Your task to perform on an android device: open app "Facebook" (install if not already installed) and go to login screen Image 0: 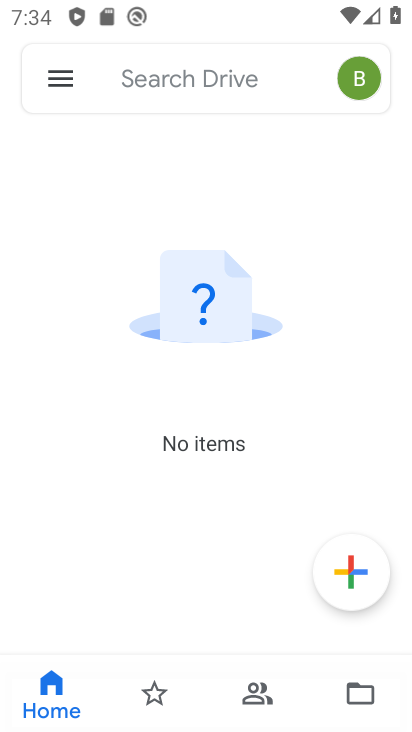
Step 0: press home button
Your task to perform on an android device: open app "Facebook" (install if not already installed) and go to login screen Image 1: 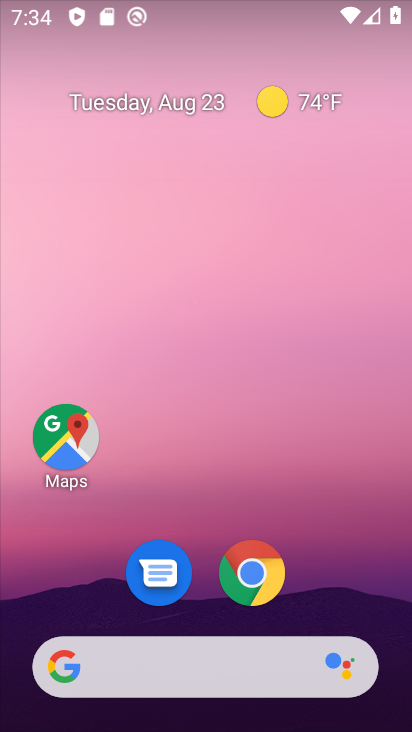
Step 1: drag from (208, 592) to (205, 64)
Your task to perform on an android device: open app "Facebook" (install if not already installed) and go to login screen Image 2: 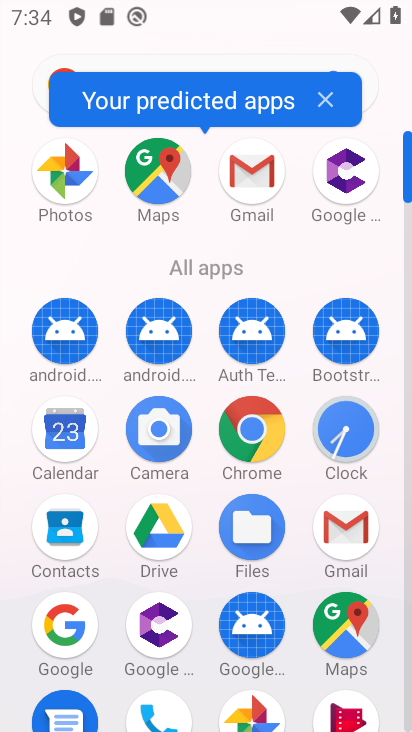
Step 2: drag from (212, 629) to (280, 237)
Your task to perform on an android device: open app "Facebook" (install if not already installed) and go to login screen Image 3: 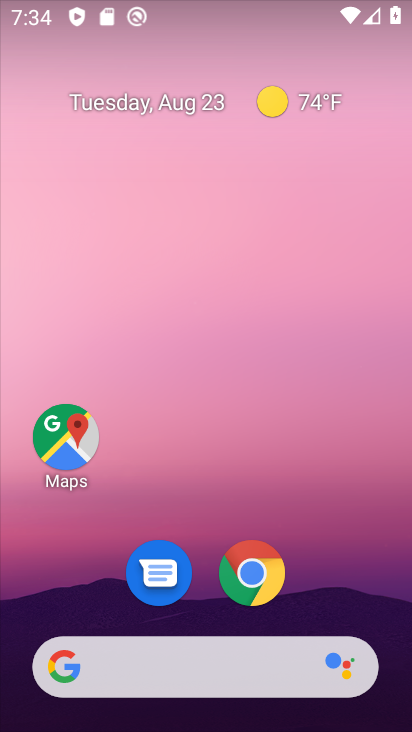
Step 3: drag from (201, 604) to (210, 85)
Your task to perform on an android device: open app "Facebook" (install if not already installed) and go to login screen Image 4: 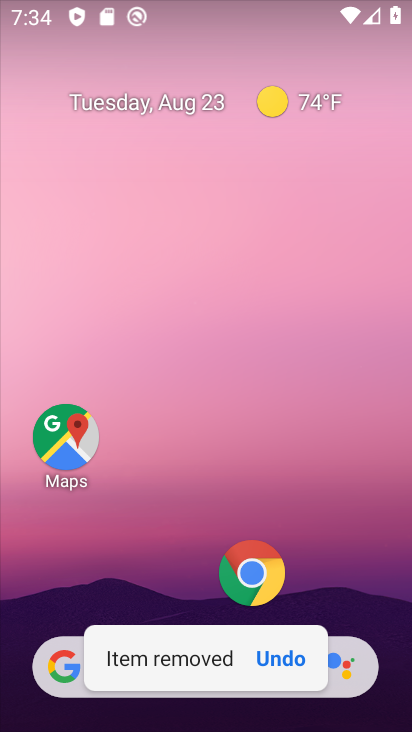
Step 4: drag from (195, 611) to (256, 136)
Your task to perform on an android device: open app "Facebook" (install if not already installed) and go to login screen Image 5: 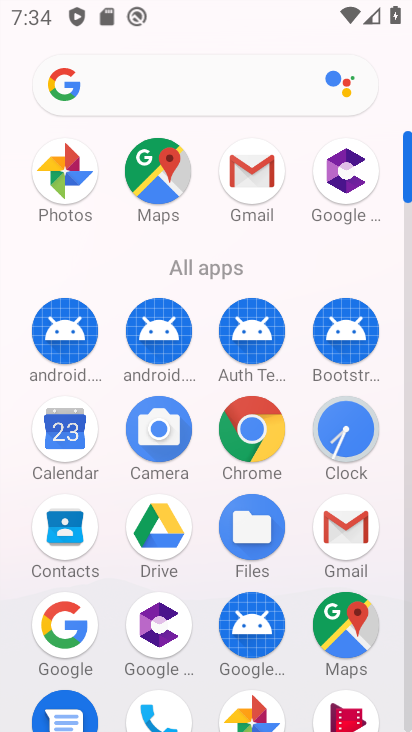
Step 5: drag from (197, 624) to (226, 264)
Your task to perform on an android device: open app "Facebook" (install if not already installed) and go to login screen Image 6: 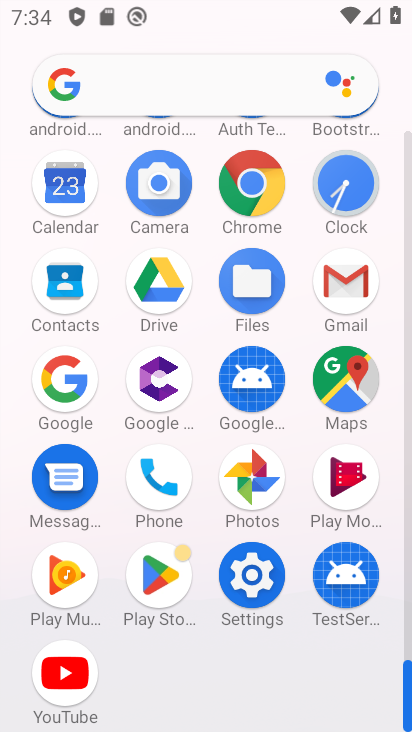
Step 6: click (159, 569)
Your task to perform on an android device: open app "Facebook" (install if not already installed) and go to login screen Image 7: 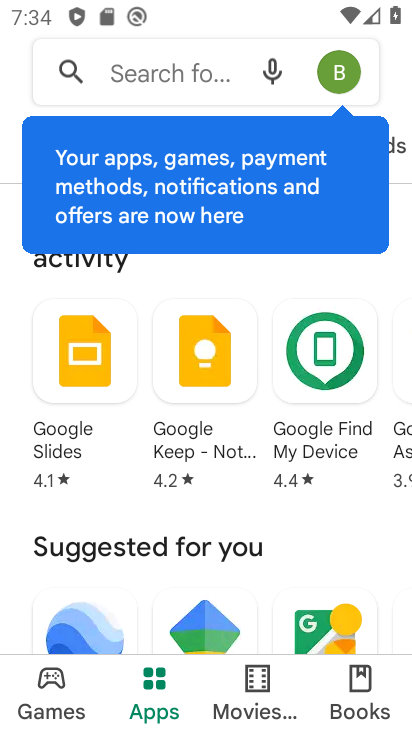
Step 7: click (146, 69)
Your task to perform on an android device: open app "Facebook" (install if not already installed) and go to login screen Image 8: 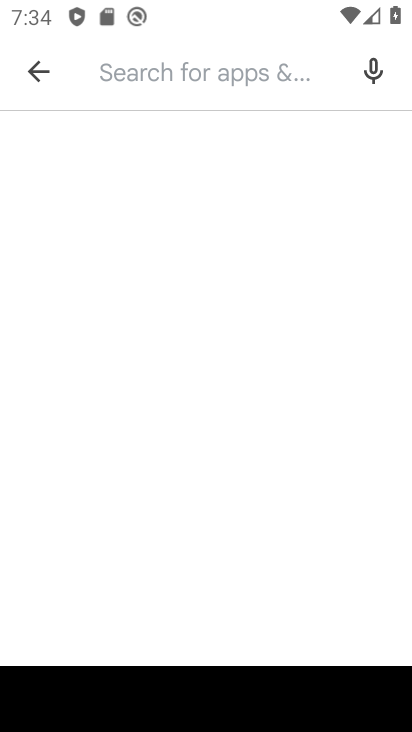
Step 8: type "Facebook"
Your task to perform on an android device: open app "Facebook" (install if not already installed) and go to login screen Image 9: 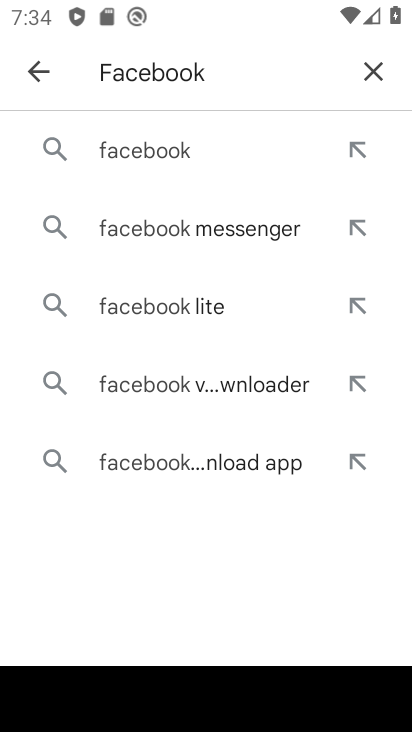
Step 9: click (182, 153)
Your task to perform on an android device: open app "Facebook" (install if not already installed) and go to login screen Image 10: 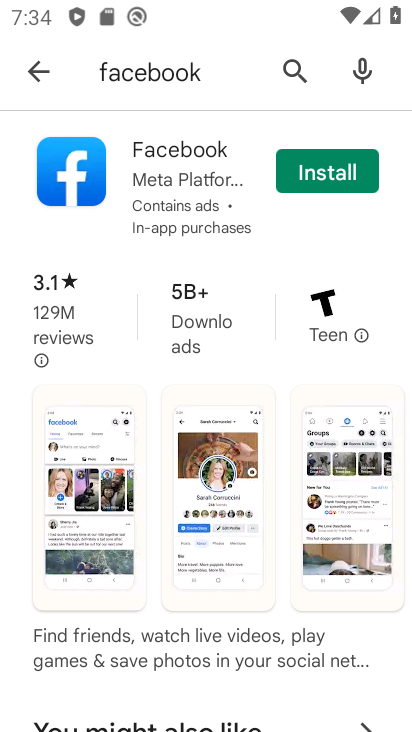
Step 10: click (311, 188)
Your task to perform on an android device: open app "Facebook" (install if not already installed) and go to login screen Image 11: 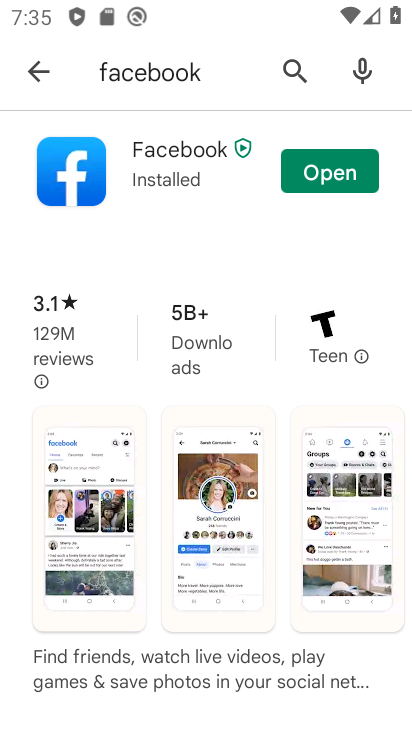
Step 11: click (319, 179)
Your task to perform on an android device: open app "Facebook" (install if not already installed) and go to login screen Image 12: 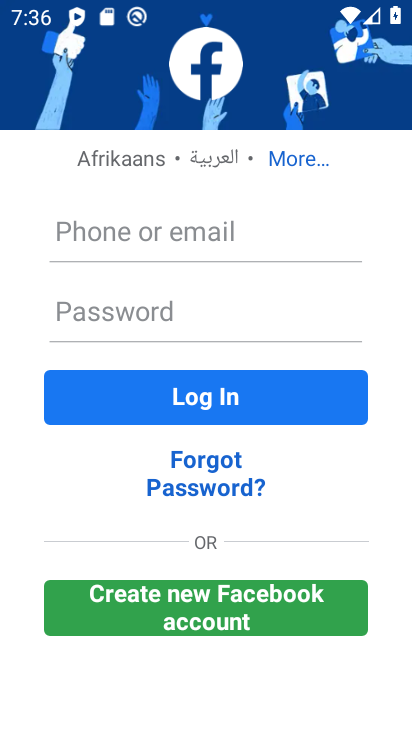
Step 12: task complete